Your task to perform on an android device: empty trash in google photos Image 0: 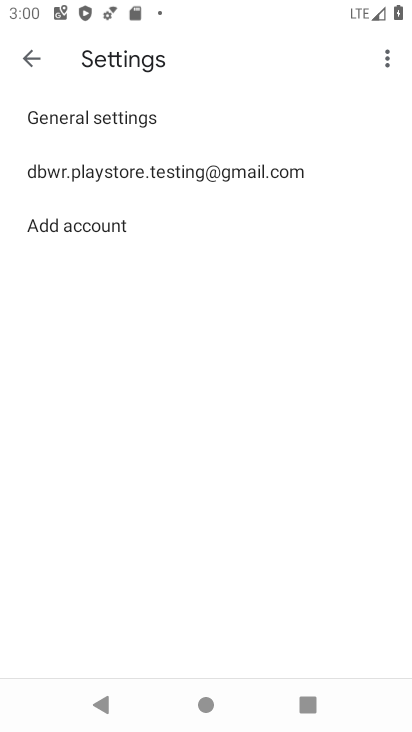
Step 0: press home button
Your task to perform on an android device: empty trash in google photos Image 1: 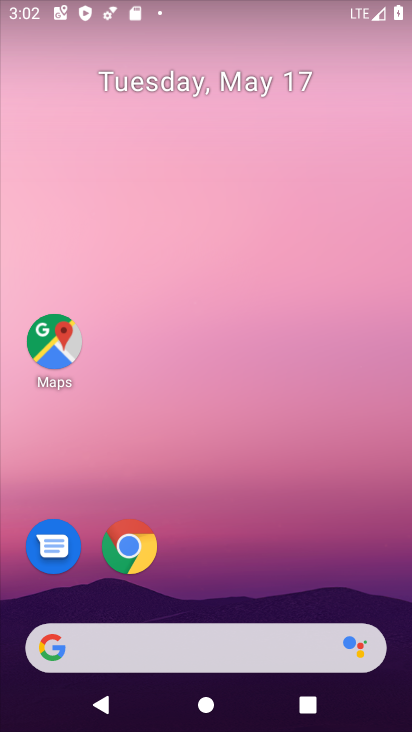
Step 1: drag from (267, 558) to (285, 24)
Your task to perform on an android device: empty trash in google photos Image 2: 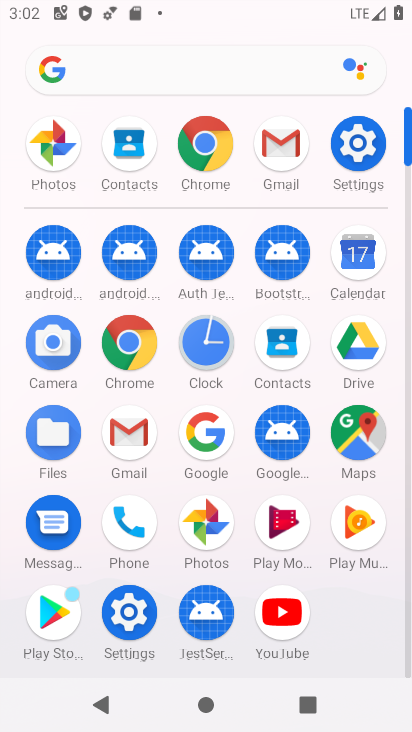
Step 2: click (234, 511)
Your task to perform on an android device: empty trash in google photos Image 3: 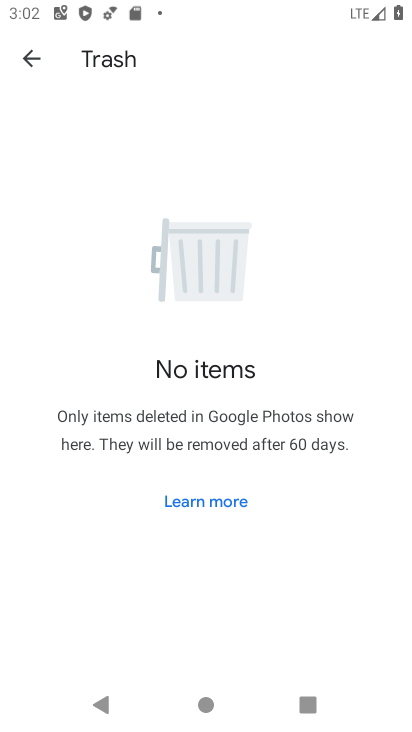
Step 3: click (33, 68)
Your task to perform on an android device: empty trash in google photos Image 4: 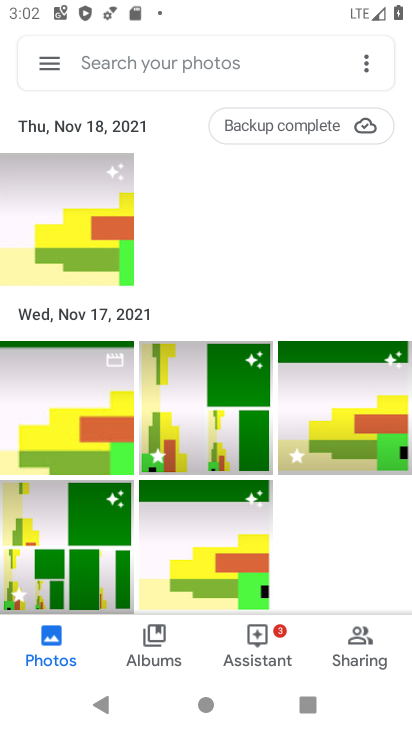
Step 4: click (33, 68)
Your task to perform on an android device: empty trash in google photos Image 5: 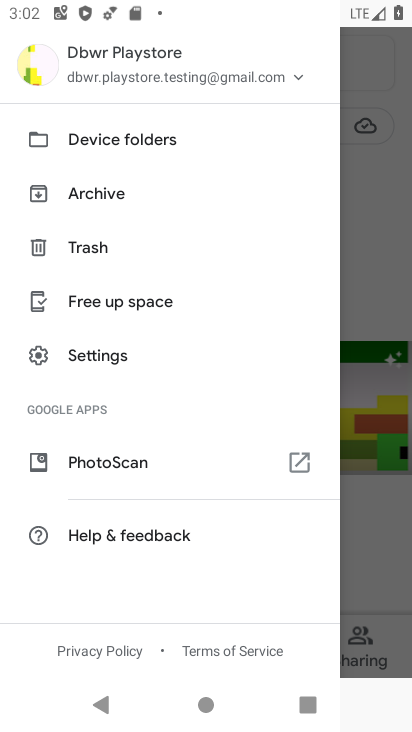
Step 5: click (110, 250)
Your task to perform on an android device: empty trash in google photos Image 6: 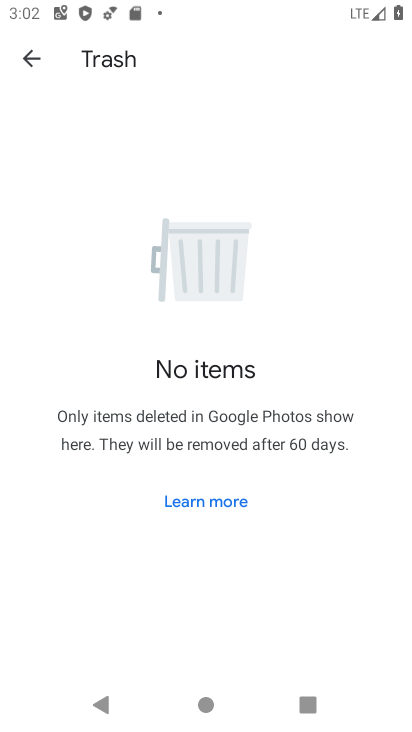
Step 6: task complete